Your task to perform on an android device: Open Android settings Image 0: 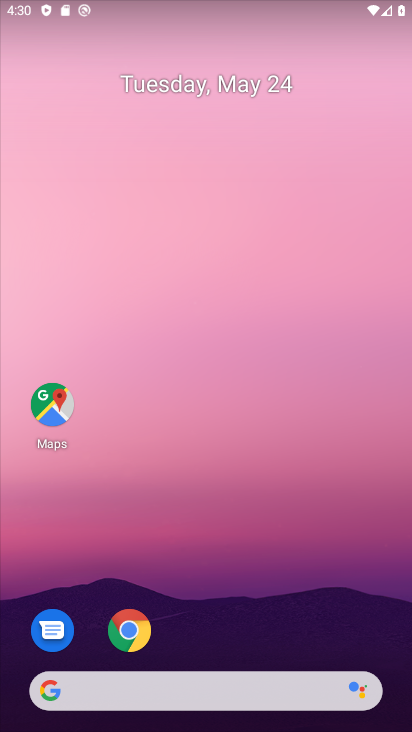
Step 0: drag from (197, 646) to (261, 16)
Your task to perform on an android device: Open Android settings Image 1: 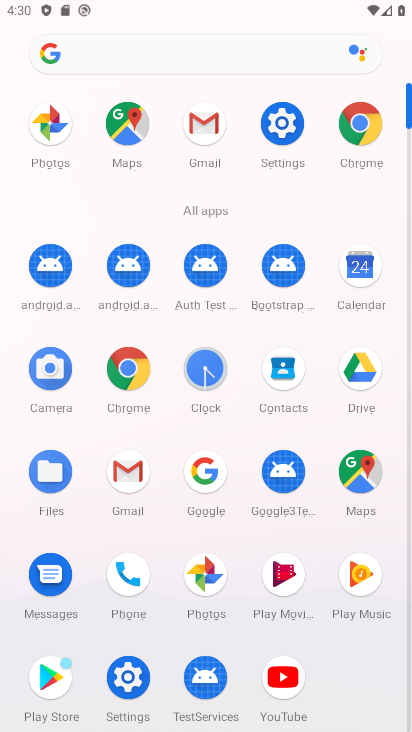
Step 1: click (289, 124)
Your task to perform on an android device: Open Android settings Image 2: 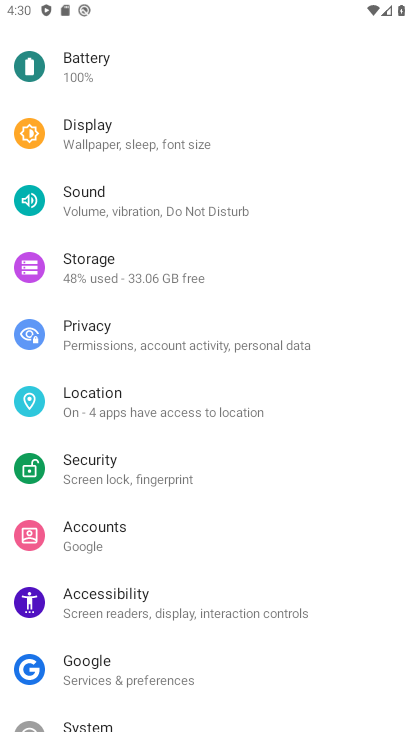
Step 2: task complete